Your task to perform on an android device: Play the last video I watched on Youtube Image 0: 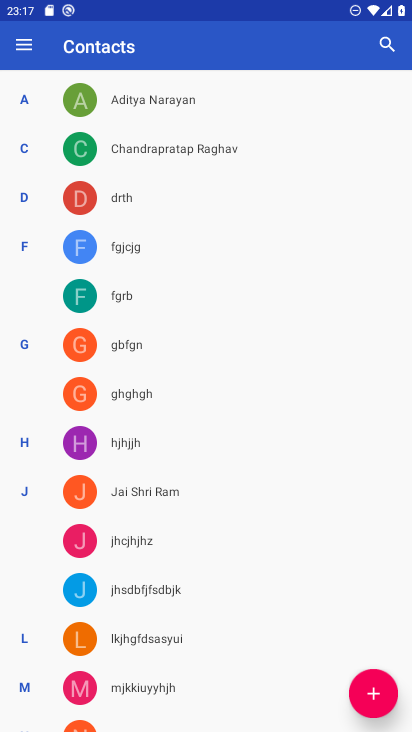
Step 0: press home button
Your task to perform on an android device: Play the last video I watched on Youtube Image 1: 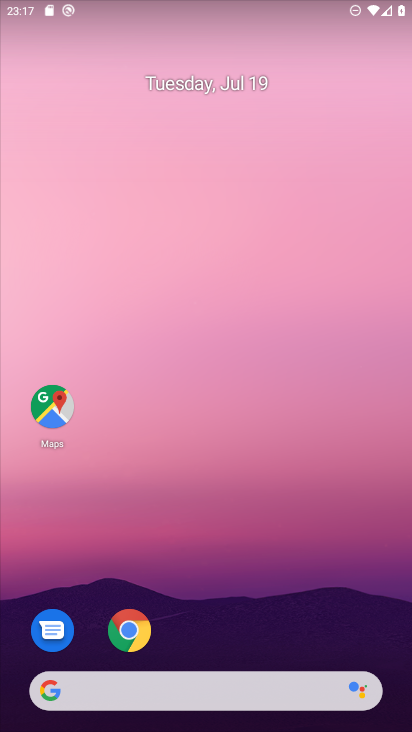
Step 1: drag from (194, 629) to (154, 252)
Your task to perform on an android device: Play the last video I watched on Youtube Image 2: 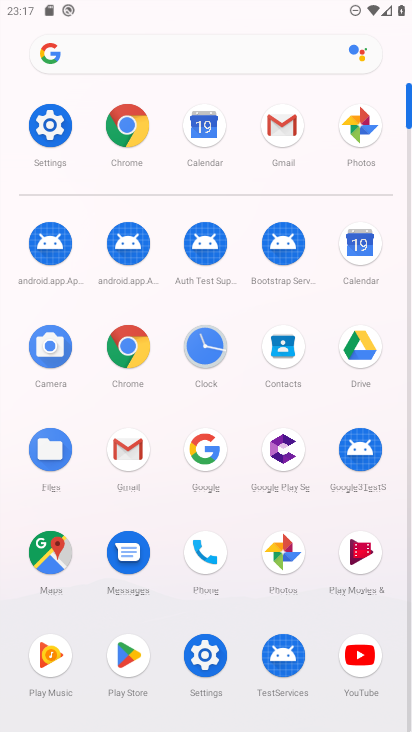
Step 2: click (353, 675)
Your task to perform on an android device: Play the last video I watched on Youtube Image 3: 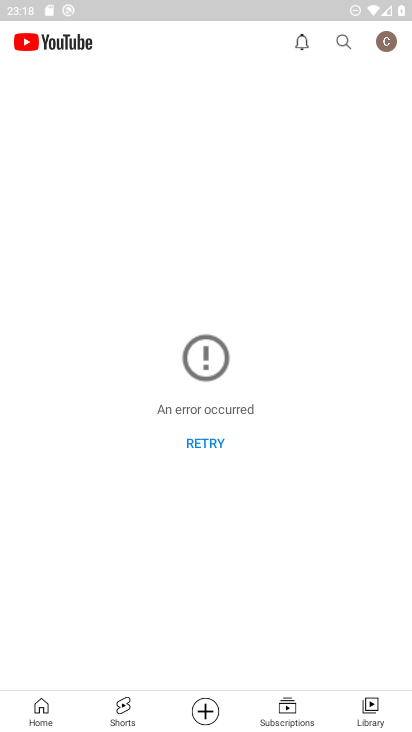
Step 3: click (369, 712)
Your task to perform on an android device: Play the last video I watched on Youtube Image 4: 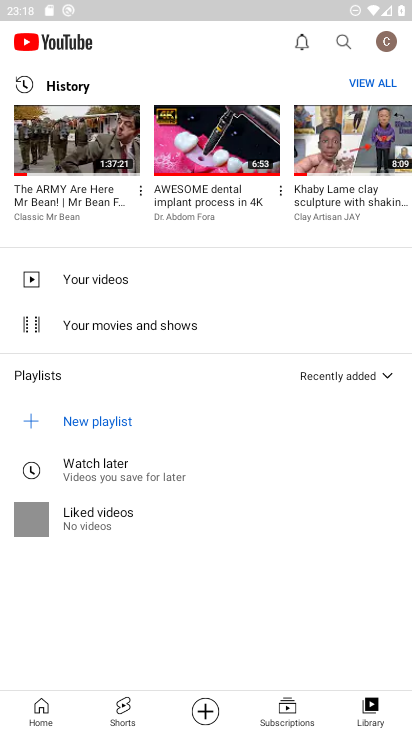
Step 4: click (65, 165)
Your task to perform on an android device: Play the last video I watched on Youtube Image 5: 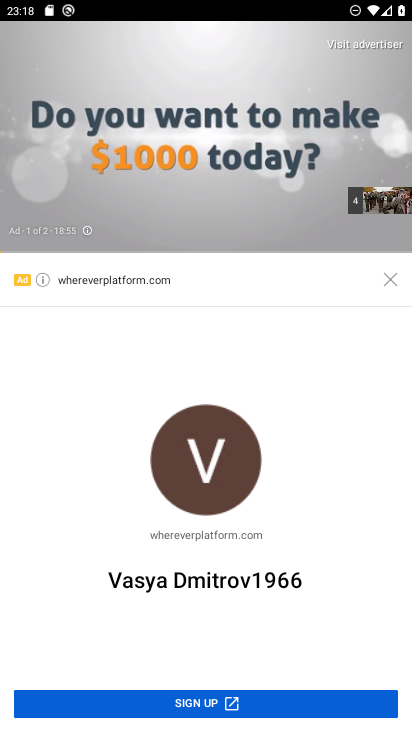
Step 5: click (202, 153)
Your task to perform on an android device: Play the last video I watched on Youtube Image 6: 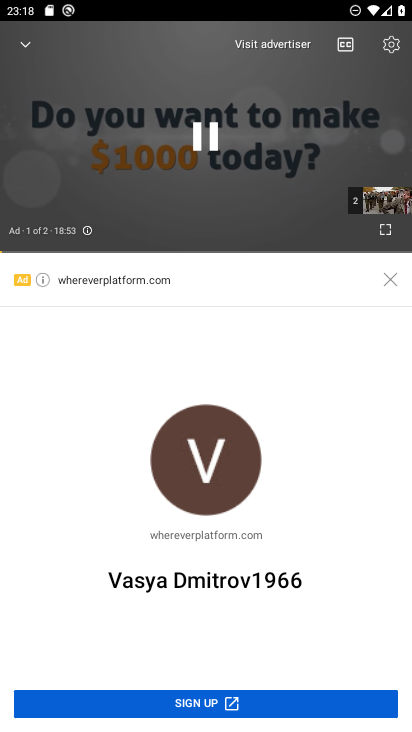
Step 6: click (206, 132)
Your task to perform on an android device: Play the last video I watched on Youtube Image 7: 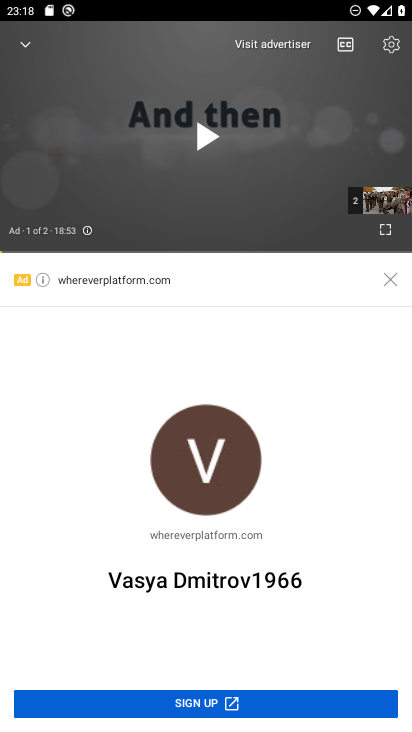
Step 7: task complete